Your task to perform on an android device: open app "Google Calendar" (install if not already installed) Image 0: 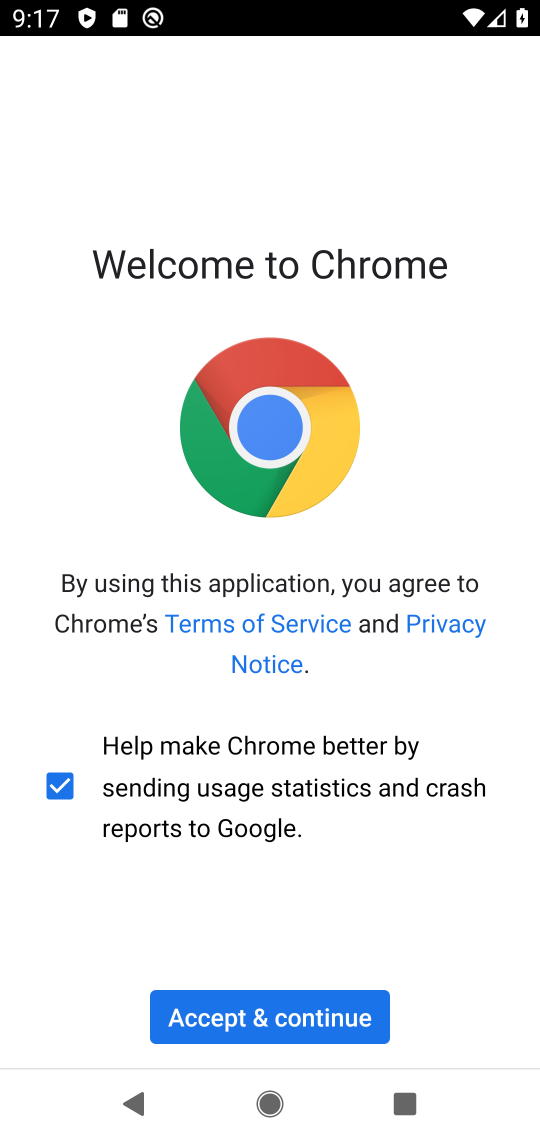
Step 0: press home button
Your task to perform on an android device: open app "Google Calendar" (install if not already installed) Image 1: 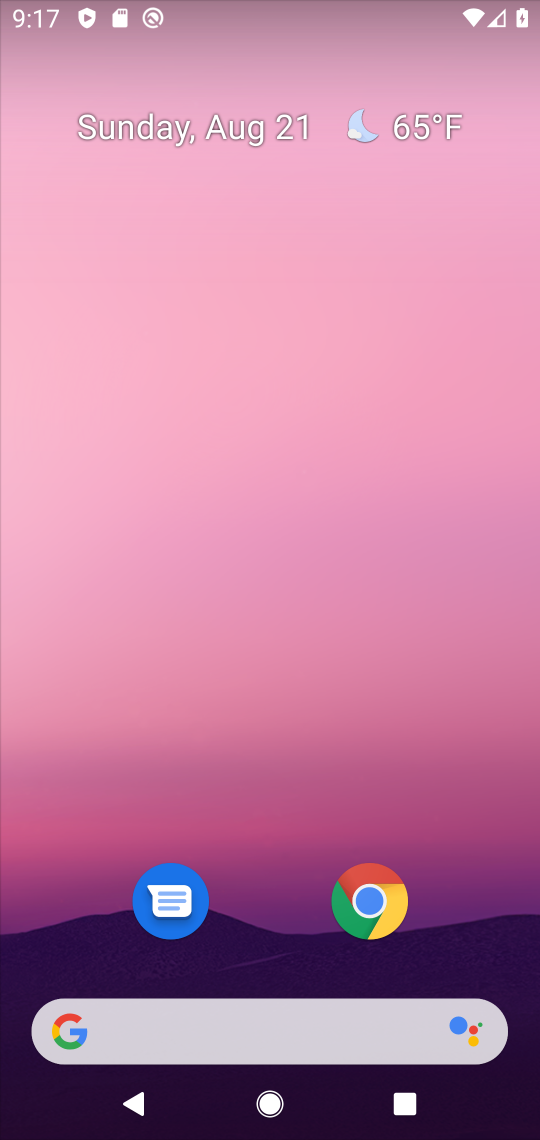
Step 1: drag from (467, 914) to (490, 123)
Your task to perform on an android device: open app "Google Calendar" (install if not already installed) Image 2: 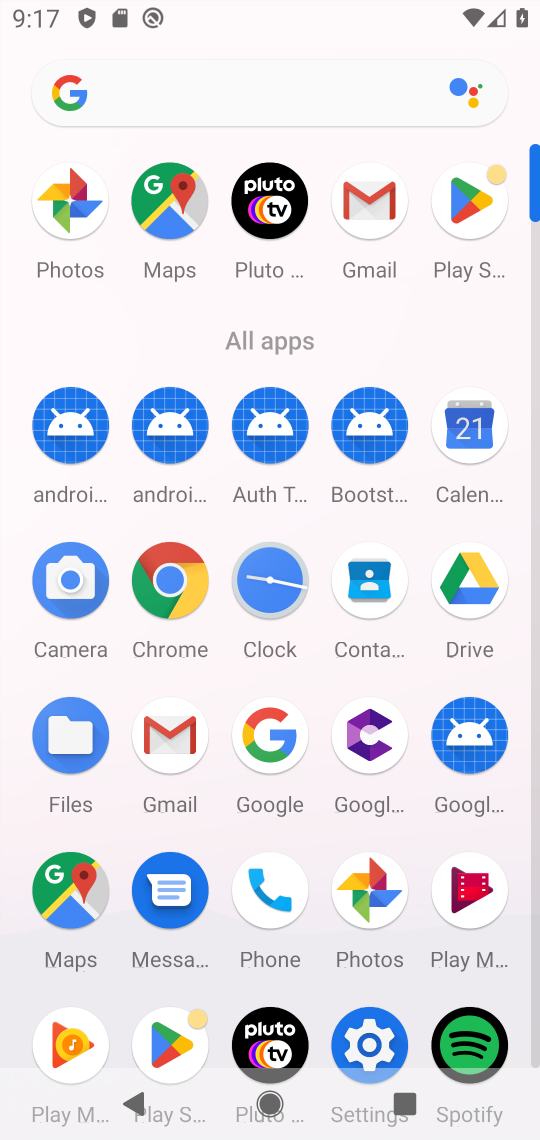
Step 2: click (466, 204)
Your task to perform on an android device: open app "Google Calendar" (install if not already installed) Image 3: 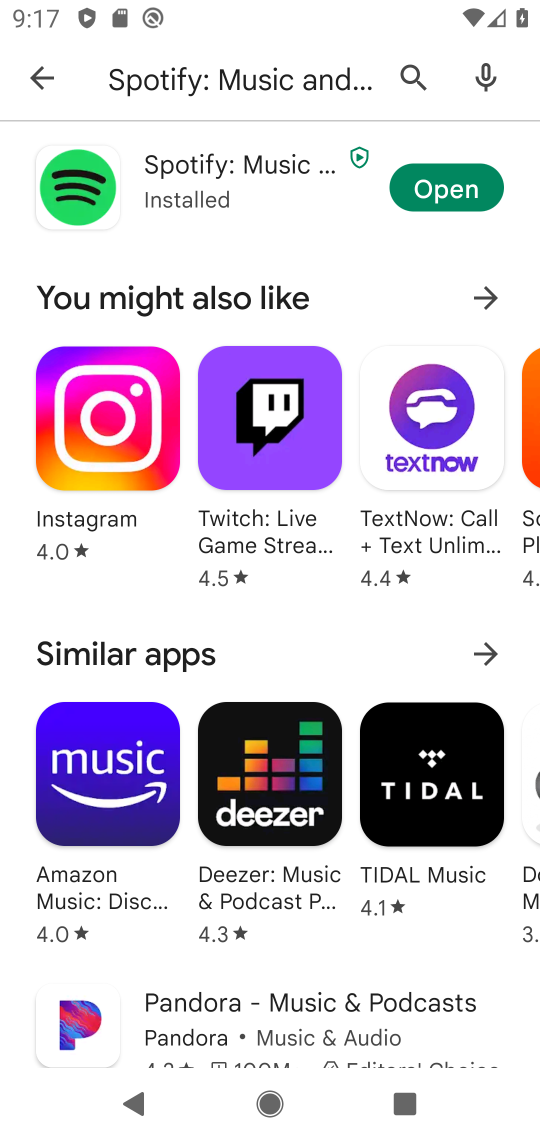
Step 3: press back button
Your task to perform on an android device: open app "Google Calendar" (install if not already installed) Image 4: 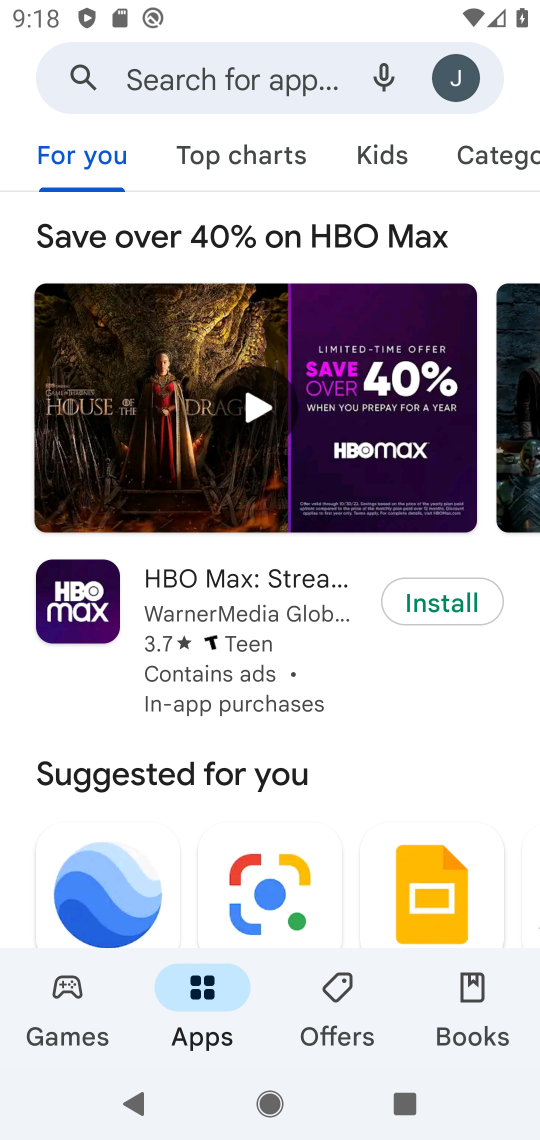
Step 4: click (241, 75)
Your task to perform on an android device: open app "Google Calendar" (install if not already installed) Image 5: 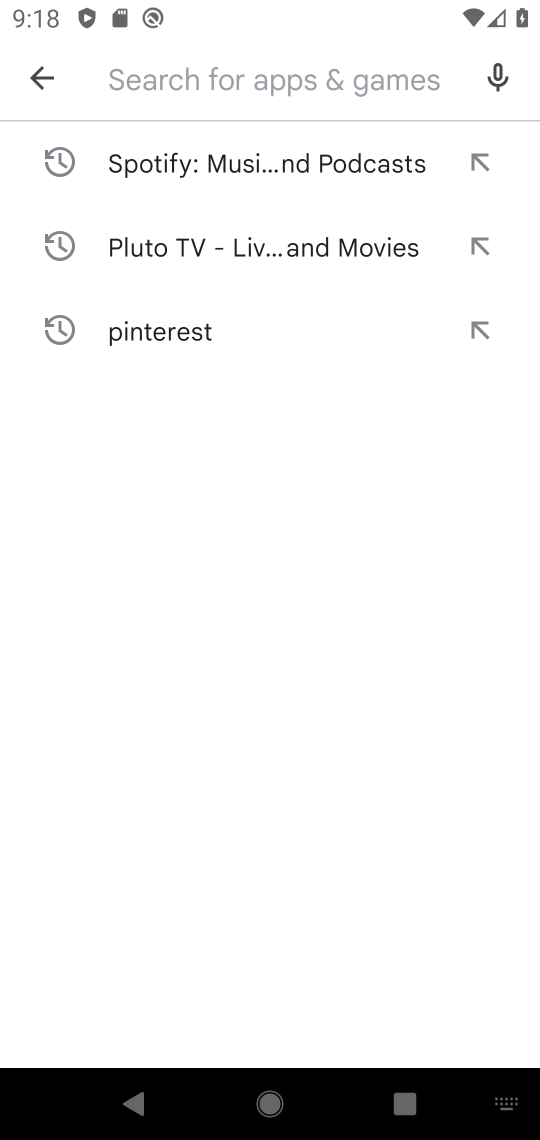
Step 5: press enter
Your task to perform on an android device: open app "Google Calendar" (install if not already installed) Image 6: 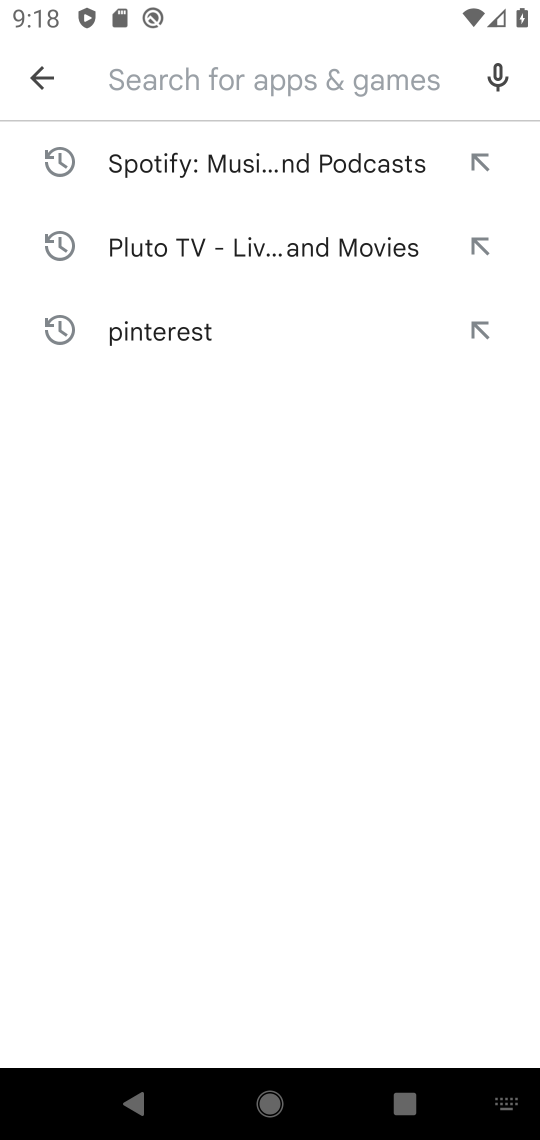
Step 6: type "Google Calendar"
Your task to perform on an android device: open app "Google Calendar" (install if not already installed) Image 7: 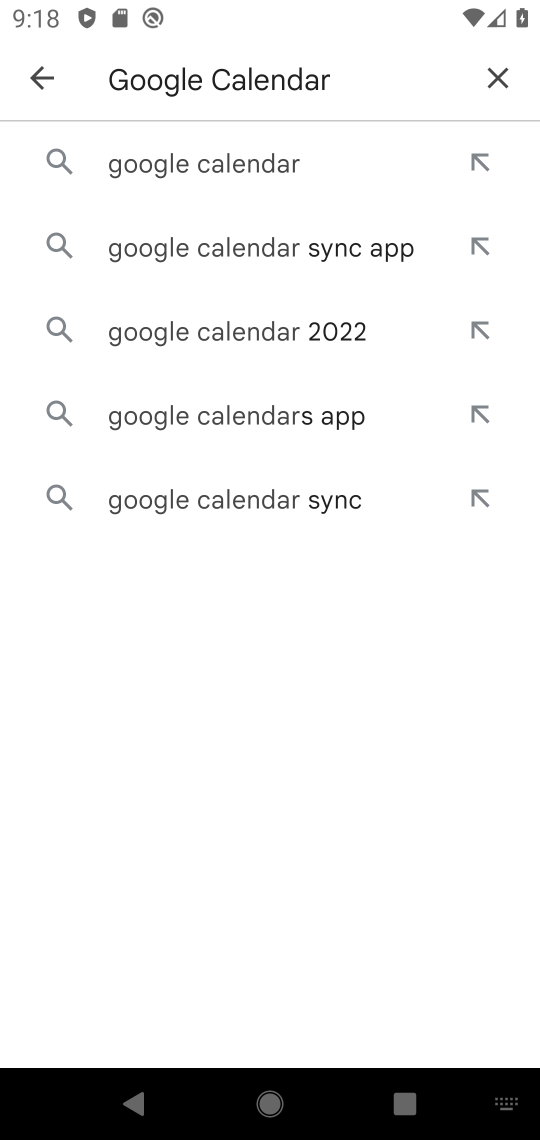
Step 7: click (277, 168)
Your task to perform on an android device: open app "Google Calendar" (install if not already installed) Image 8: 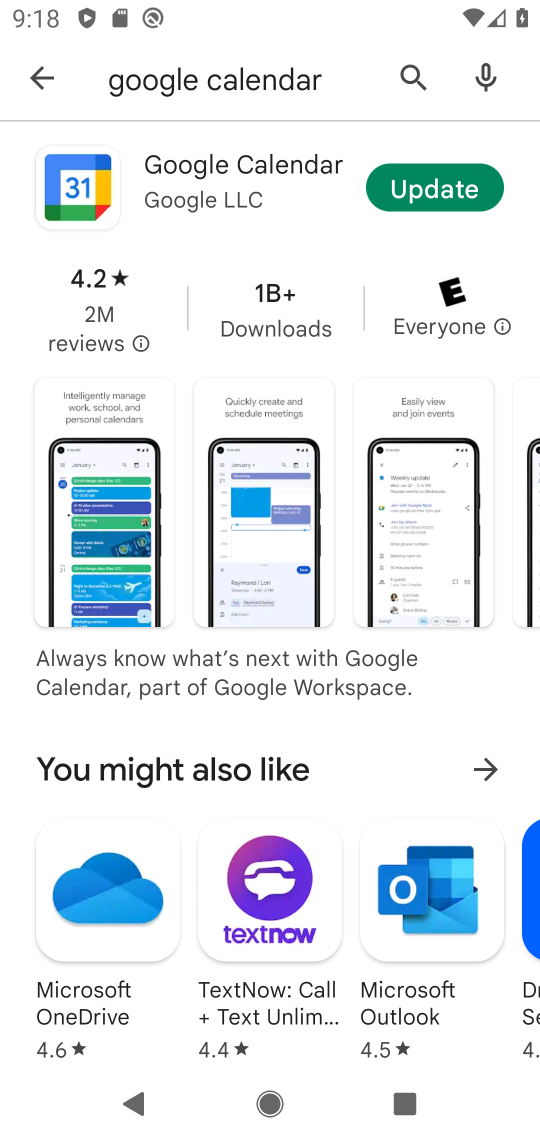
Step 8: click (433, 187)
Your task to perform on an android device: open app "Google Calendar" (install if not already installed) Image 9: 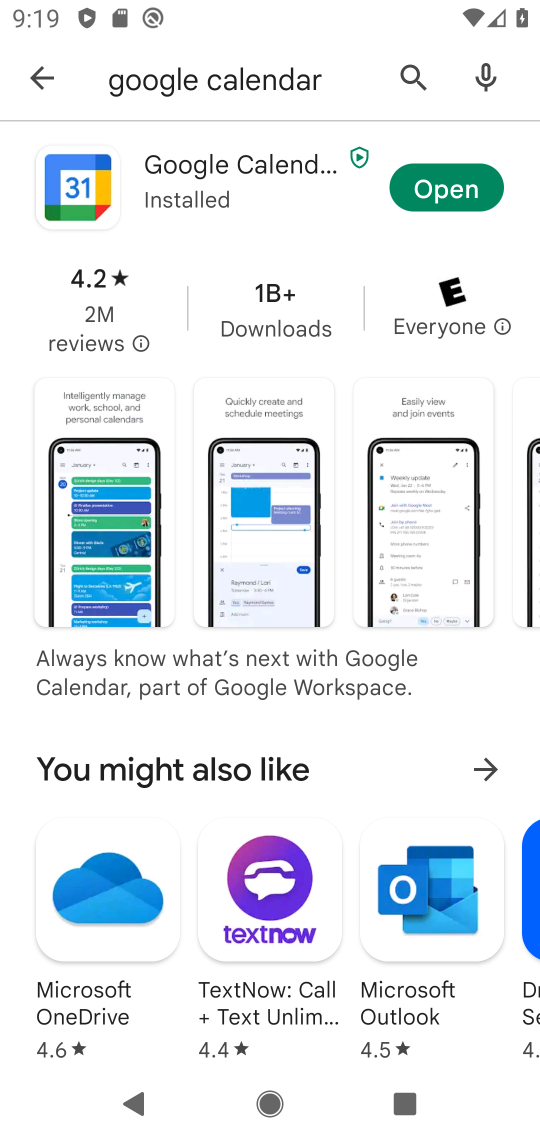
Step 9: click (454, 188)
Your task to perform on an android device: open app "Google Calendar" (install if not already installed) Image 10: 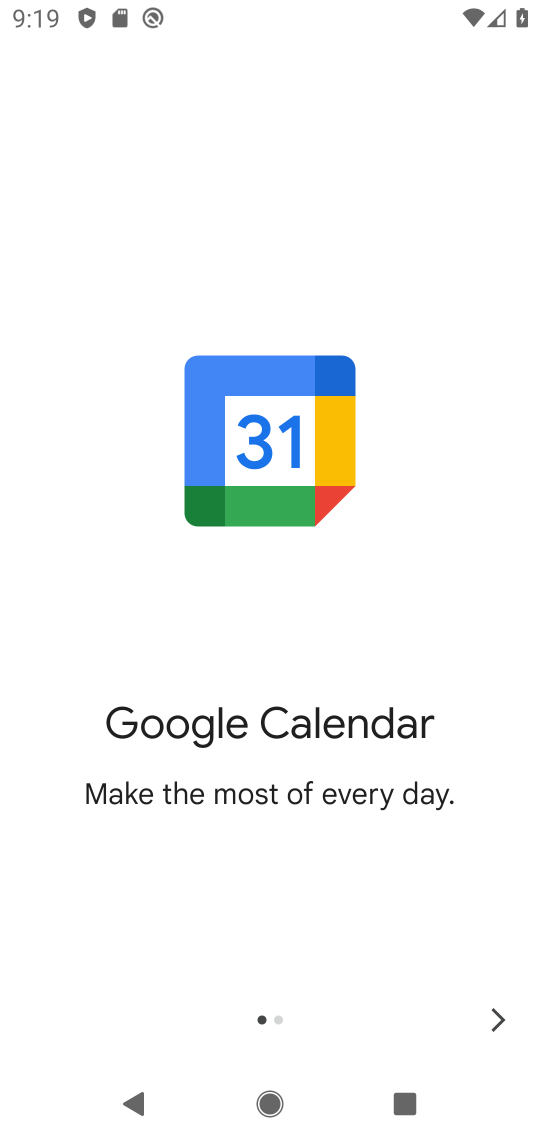
Step 10: click (498, 1015)
Your task to perform on an android device: open app "Google Calendar" (install if not already installed) Image 11: 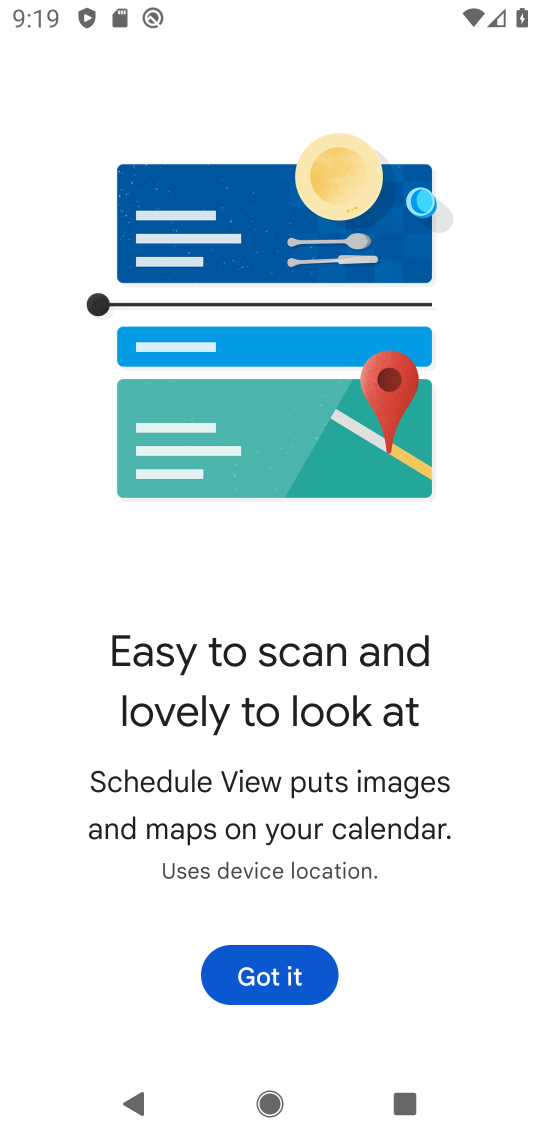
Step 11: task complete